Your task to perform on an android device: What's the weather going to be this weekend? Image 0: 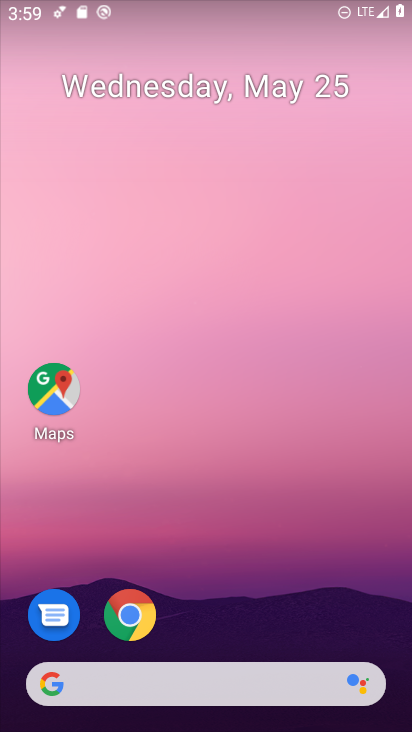
Step 0: click (203, 689)
Your task to perform on an android device: What's the weather going to be this weekend? Image 1: 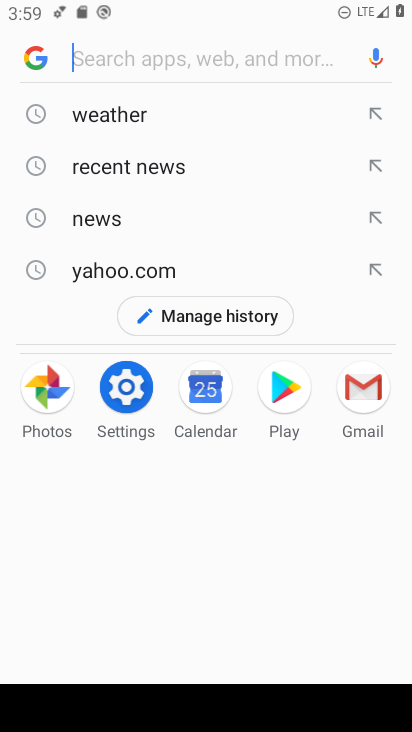
Step 1: click (96, 115)
Your task to perform on an android device: What's the weather going to be this weekend? Image 2: 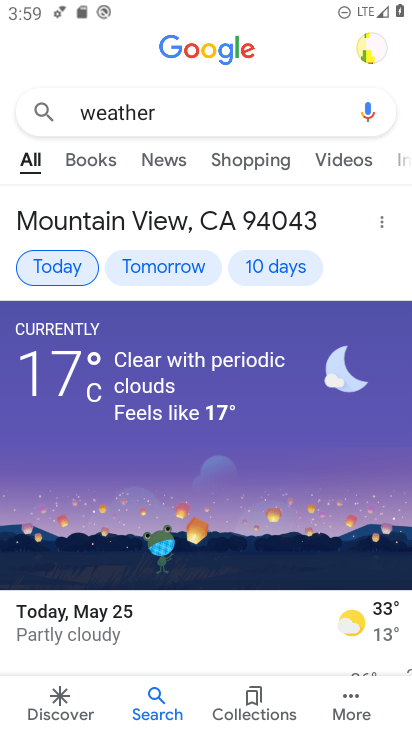
Step 2: click (60, 262)
Your task to perform on an android device: What's the weather going to be this weekend? Image 3: 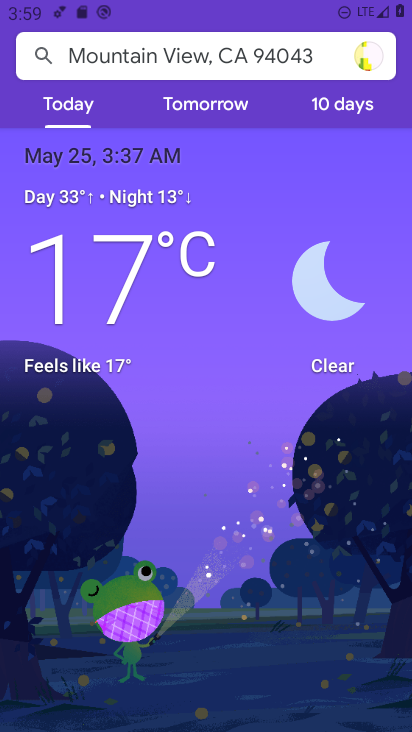
Step 3: click (337, 101)
Your task to perform on an android device: What's the weather going to be this weekend? Image 4: 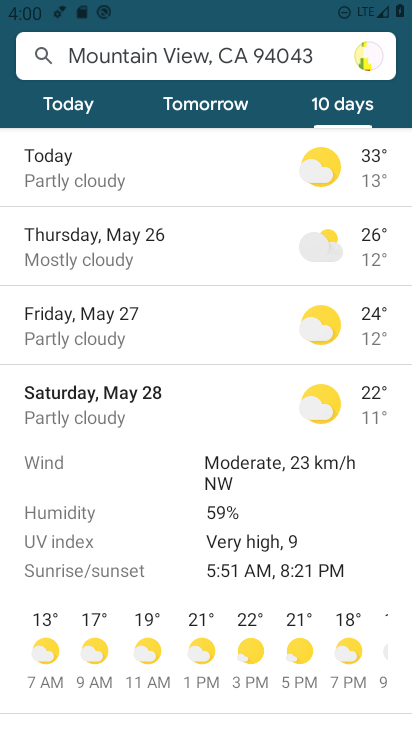
Step 4: task complete